Your task to perform on an android device: What's the news? Image 0: 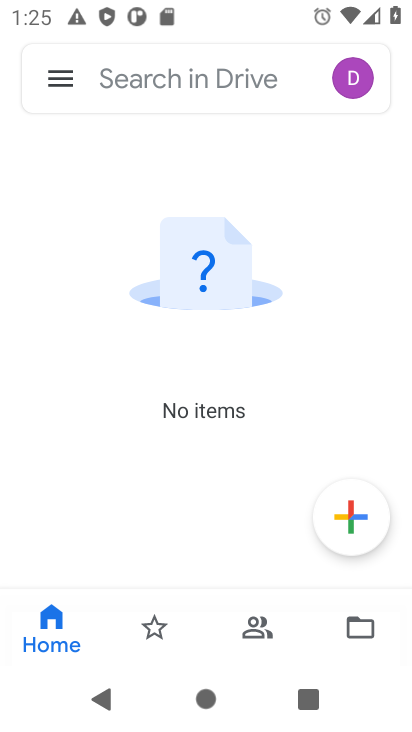
Step 0: press home button
Your task to perform on an android device: What's the news? Image 1: 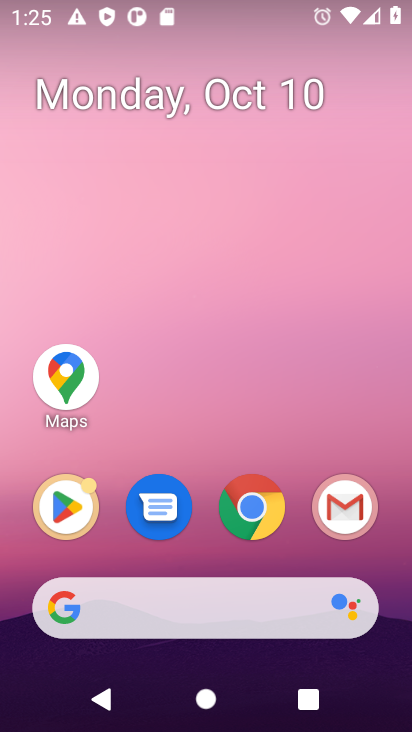
Step 1: click (256, 613)
Your task to perform on an android device: What's the news? Image 2: 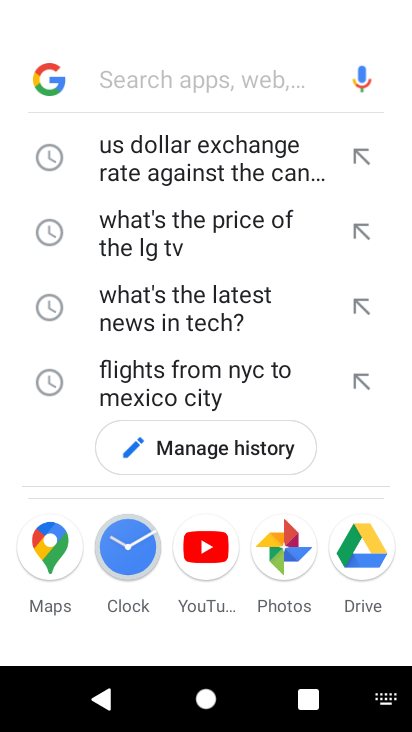
Step 2: type "What's the news?"
Your task to perform on an android device: What's the news? Image 3: 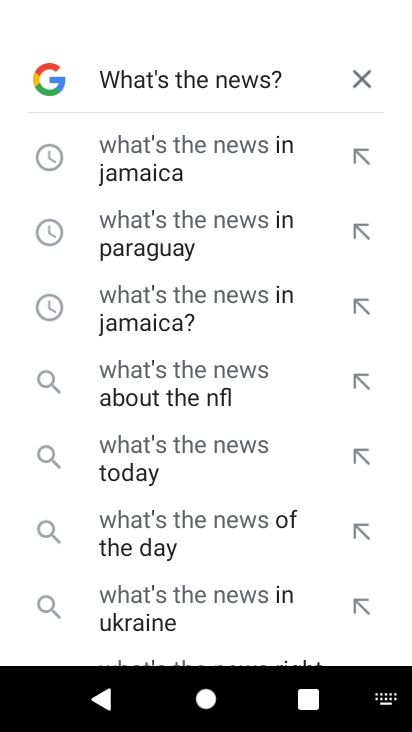
Step 3: press enter
Your task to perform on an android device: What's the news? Image 4: 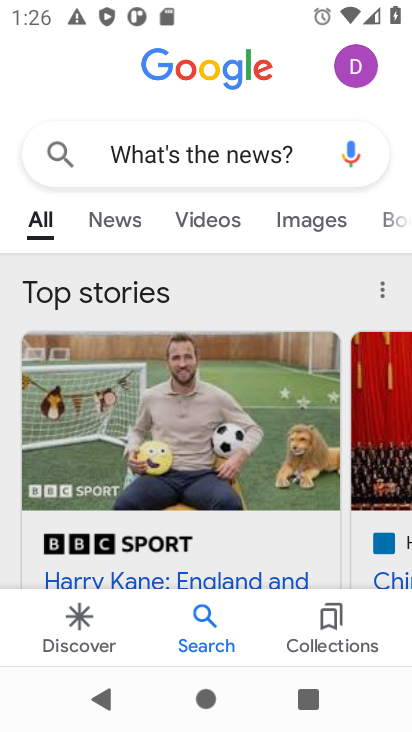
Step 4: drag from (205, 541) to (234, 349)
Your task to perform on an android device: What's the news? Image 5: 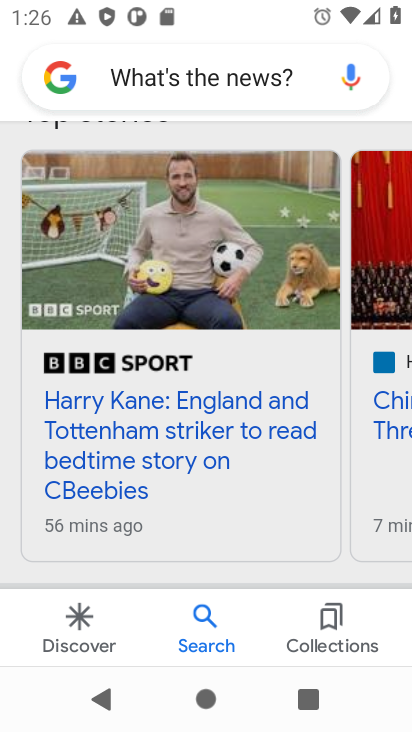
Step 5: drag from (238, 523) to (252, 350)
Your task to perform on an android device: What's the news? Image 6: 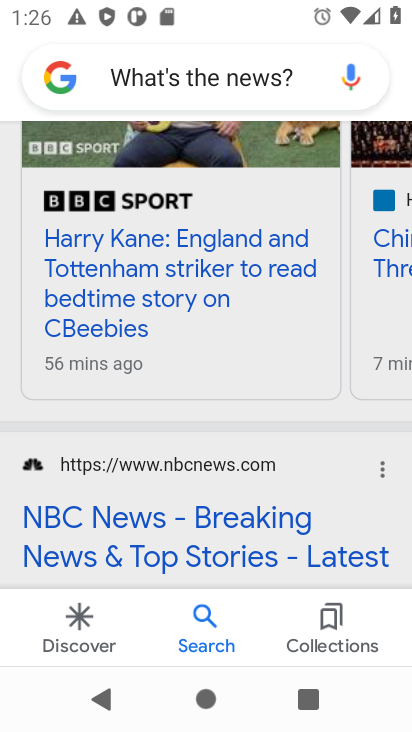
Step 6: drag from (261, 546) to (284, 411)
Your task to perform on an android device: What's the news? Image 7: 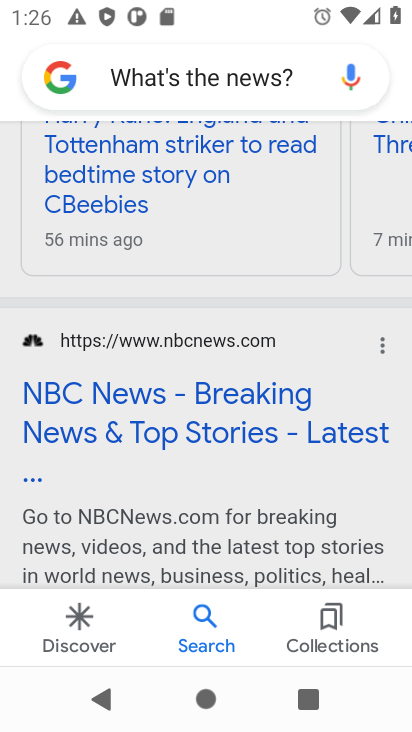
Step 7: click (256, 414)
Your task to perform on an android device: What's the news? Image 8: 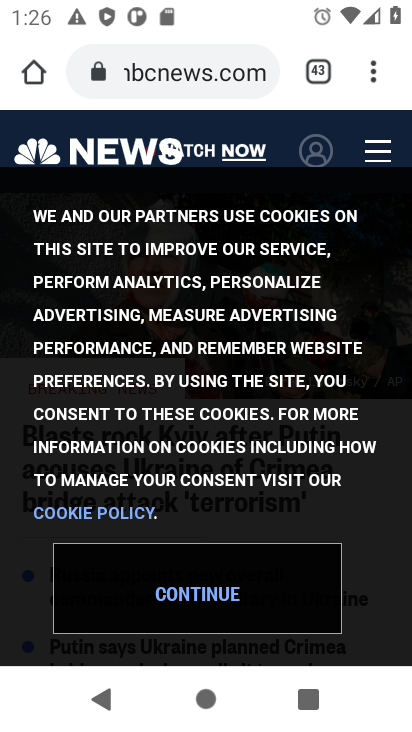
Step 8: click (198, 614)
Your task to perform on an android device: What's the news? Image 9: 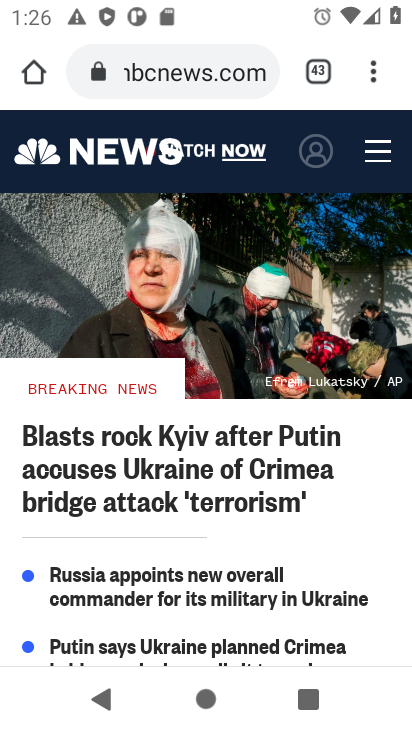
Step 9: task complete